Your task to perform on an android device: see tabs open on other devices in the chrome app Image 0: 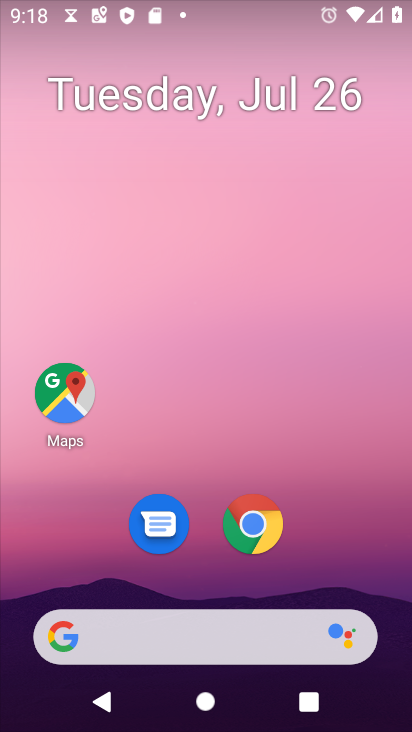
Step 0: click (266, 524)
Your task to perform on an android device: see tabs open on other devices in the chrome app Image 1: 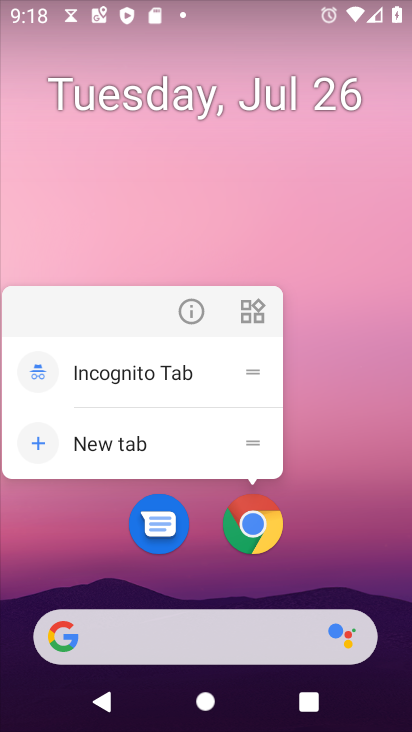
Step 1: click (266, 525)
Your task to perform on an android device: see tabs open on other devices in the chrome app Image 2: 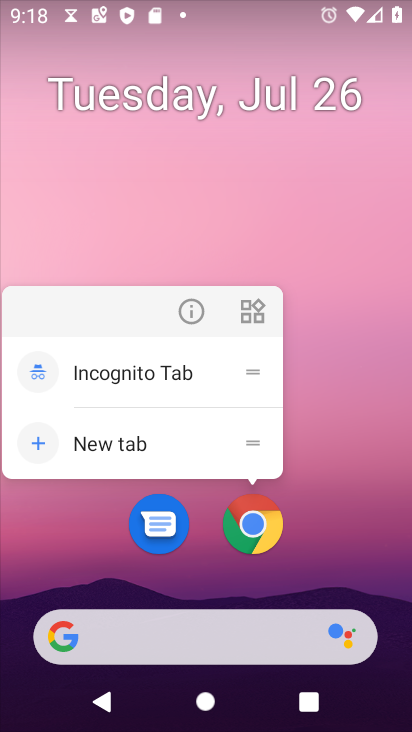
Step 2: click (252, 527)
Your task to perform on an android device: see tabs open on other devices in the chrome app Image 3: 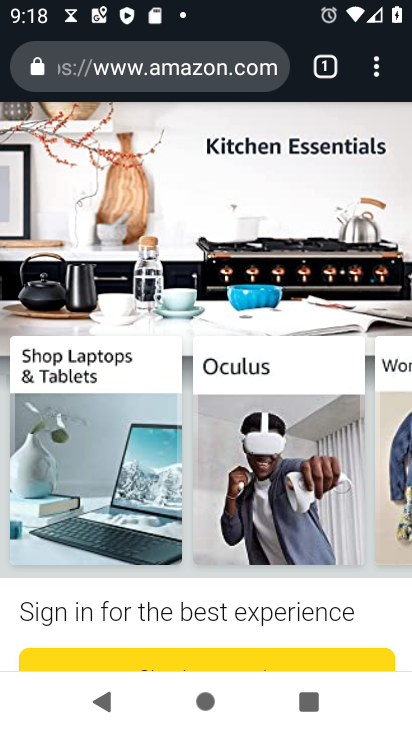
Step 3: task complete